Your task to perform on an android device: turn vacation reply on in the gmail app Image 0: 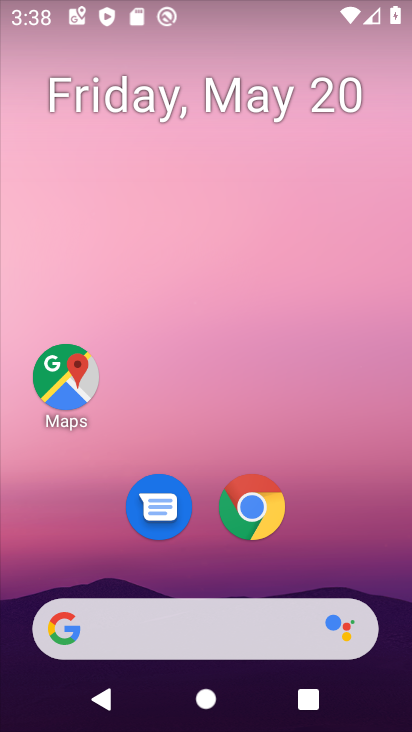
Step 0: drag from (325, 552) to (142, 0)
Your task to perform on an android device: turn vacation reply on in the gmail app Image 1: 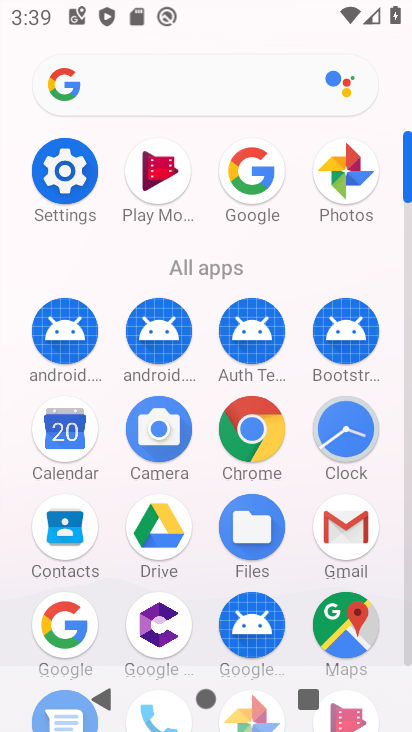
Step 1: click (344, 529)
Your task to perform on an android device: turn vacation reply on in the gmail app Image 2: 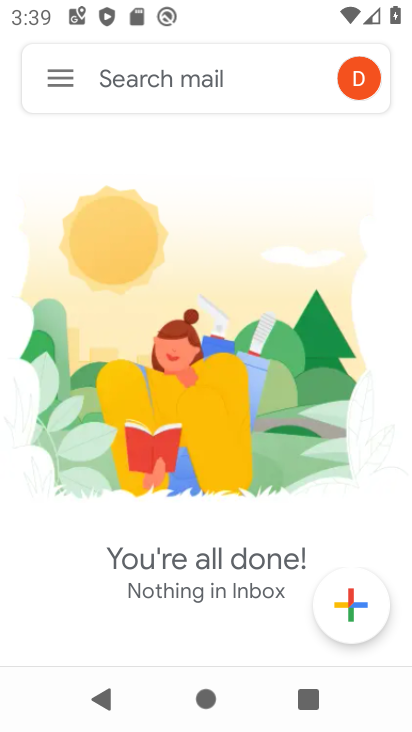
Step 2: click (59, 82)
Your task to perform on an android device: turn vacation reply on in the gmail app Image 3: 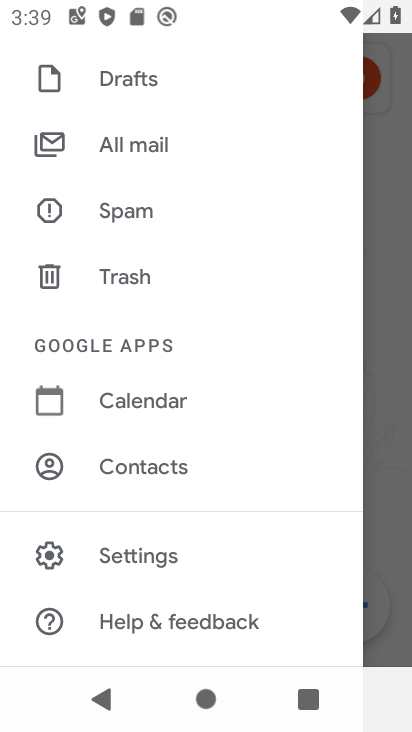
Step 3: click (124, 554)
Your task to perform on an android device: turn vacation reply on in the gmail app Image 4: 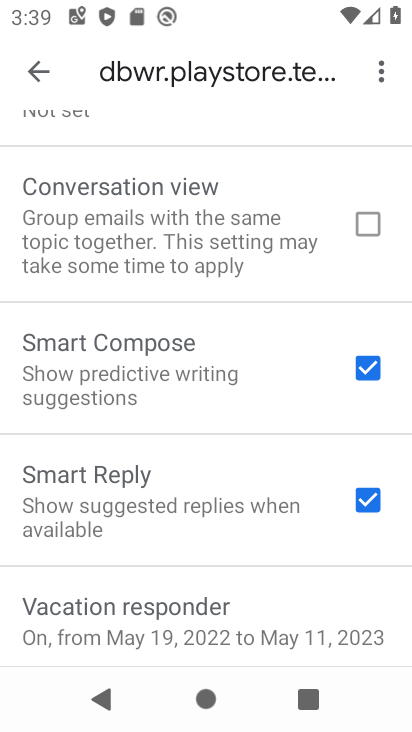
Step 4: drag from (146, 559) to (170, 445)
Your task to perform on an android device: turn vacation reply on in the gmail app Image 5: 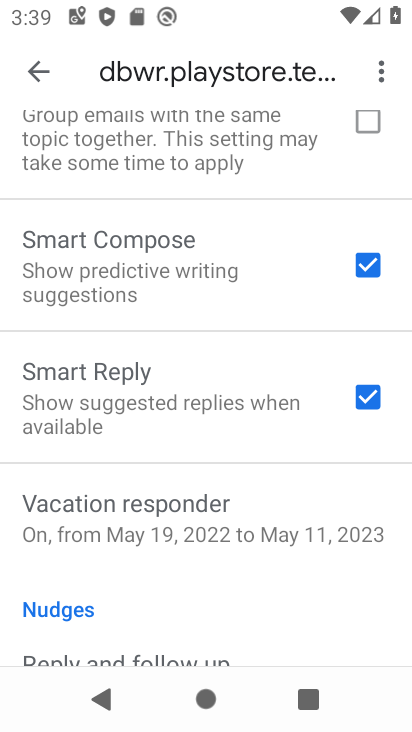
Step 5: click (168, 515)
Your task to perform on an android device: turn vacation reply on in the gmail app Image 6: 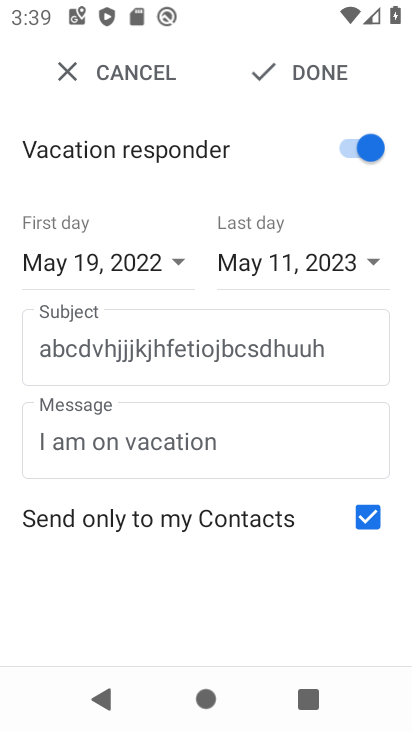
Step 6: task complete